Your task to perform on an android device: Is it going to rain tomorrow? Image 0: 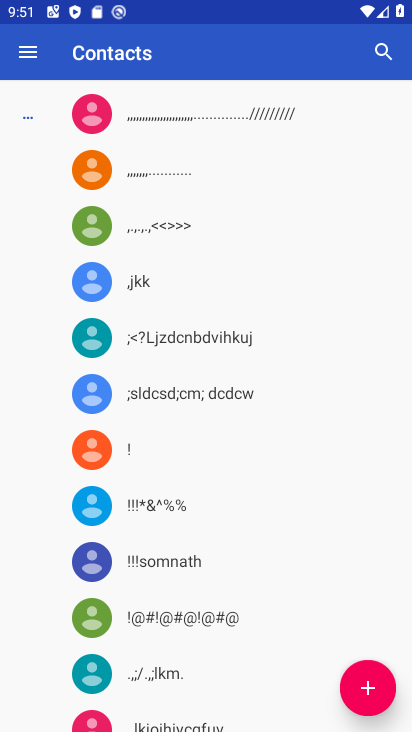
Step 0: press home button
Your task to perform on an android device: Is it going to rain tomorrow? Image 1: 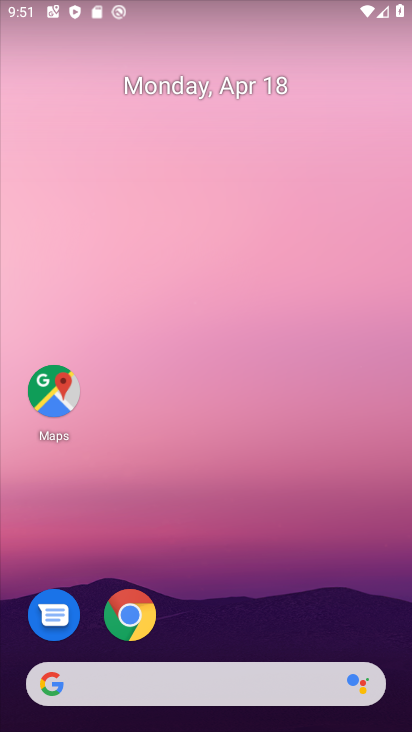
Step 1: drag from (244, 645) to (249, 334)
Your task to perform on an android device: Is it going to rain tomorrow? Image 2: 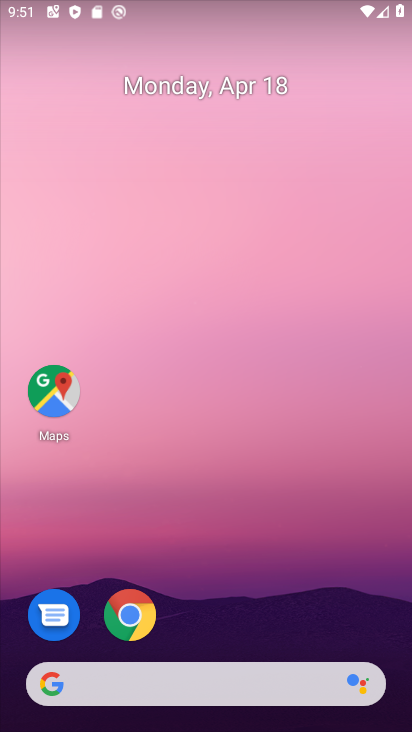
Step 2: drag from (168, 657) to (224, 277)
Your task to perform on an android device: Is it going to rain tomorrow? Image 3: 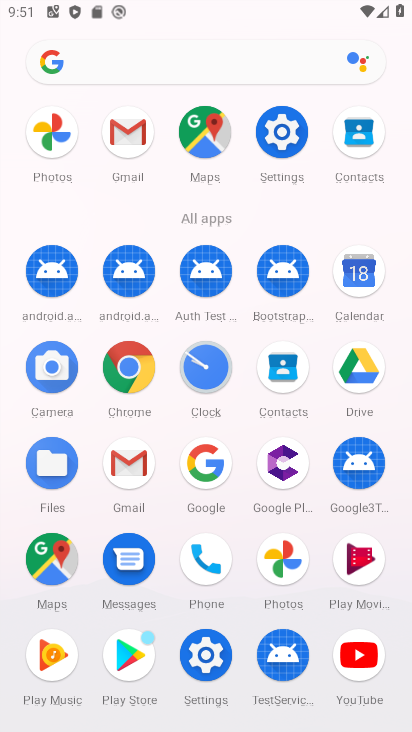
Step 3: click (201, 464)
Your task to perform on an android device: Is it going to rain tomorrow? Image 4: 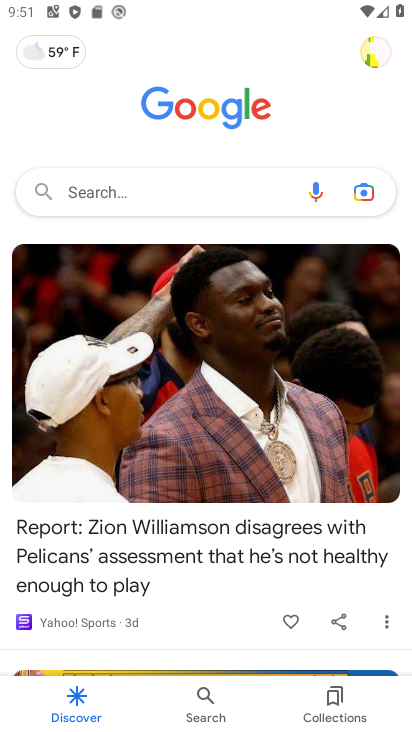
Step 4: click (174, 189)
Your task to perform on an android device: Is it going to rain tomorrow? Image 5: 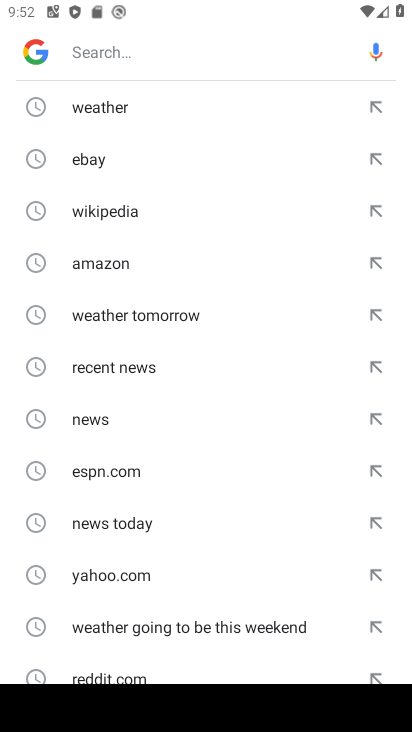
Step 5: type "is it going to rain tomorrow?"
Your task to perform on an android device: Is it going to rain tomorrow? Image 6: 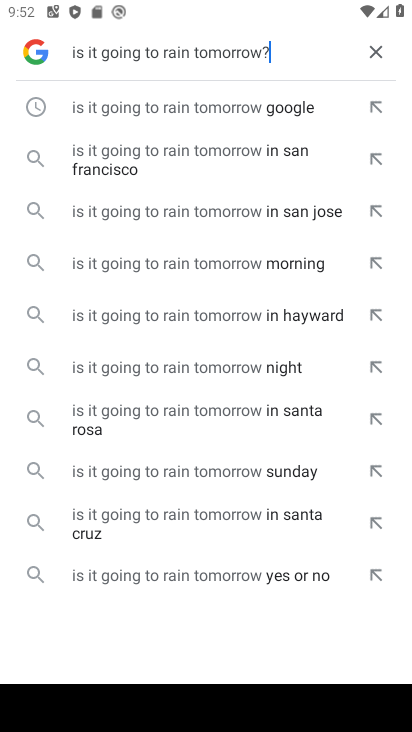
Step 6: click (214, 115)
Your task to perform on an android device: Is it going to rain tomorrow? Image 7: 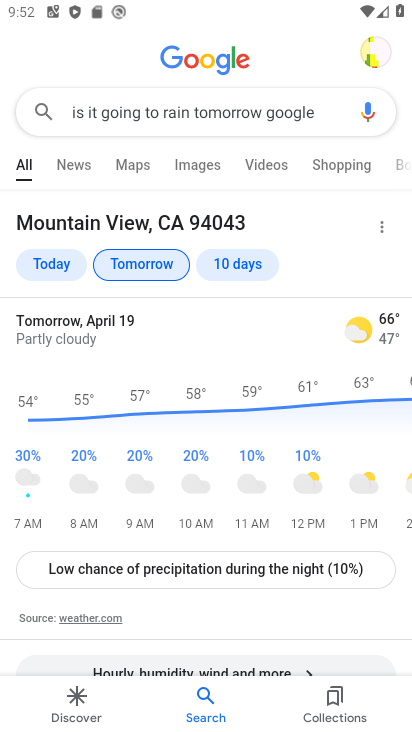
Step 7: task complete